Your task to perform on an android device: open a new tab in the chrome app Image 0: 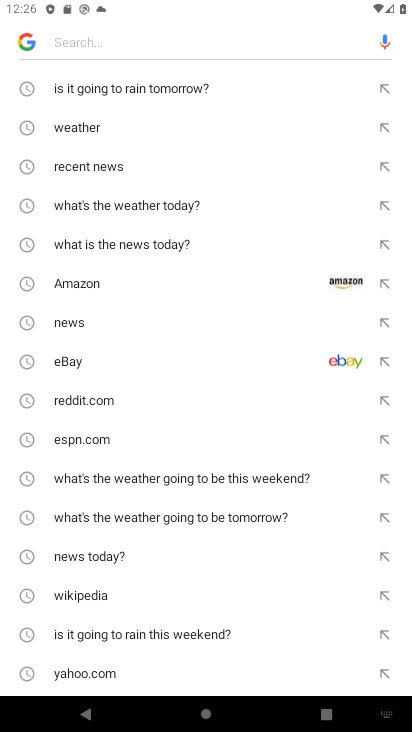
Step 0: press home button
Your task to perform on an android device: open a new tab in the chrome app Image 1: 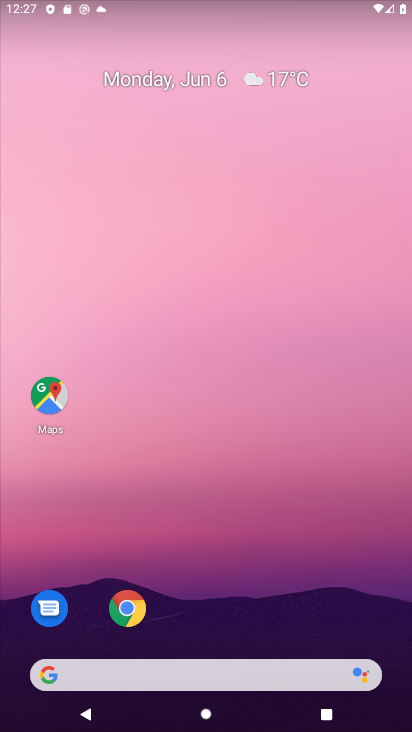
Step 1: click (124, 606)
Your task to perform on an android device: open a new tab in the chrome app Image 2: 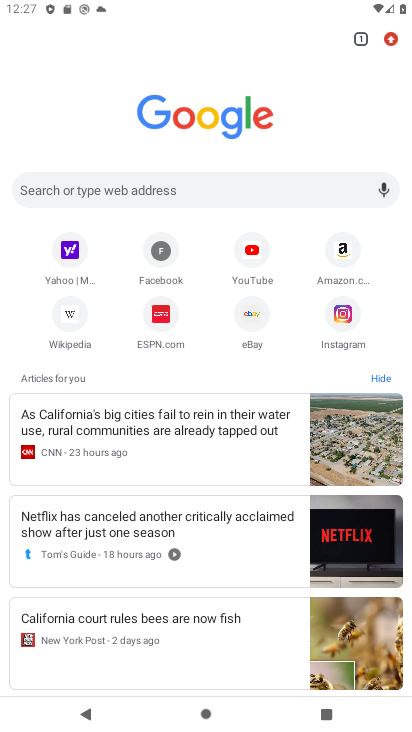
Step 2: click (362, 37)
Your task to perform on an android device: open a new tab in the chrome app Image 3: 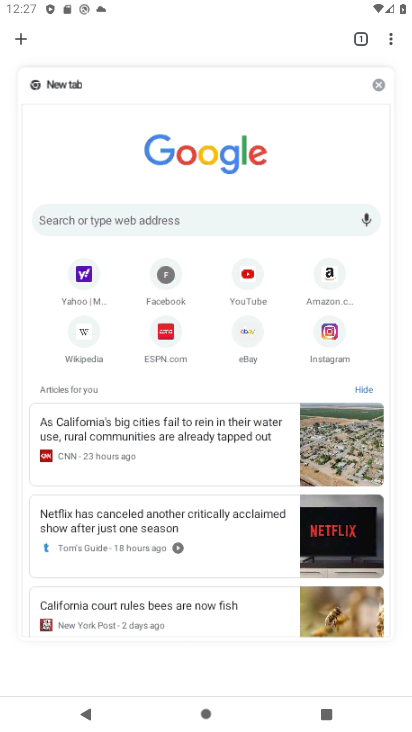
Step 3: click (26, 45)
Your task to perform on an android device: open a new tab in the chrome app Image 4: 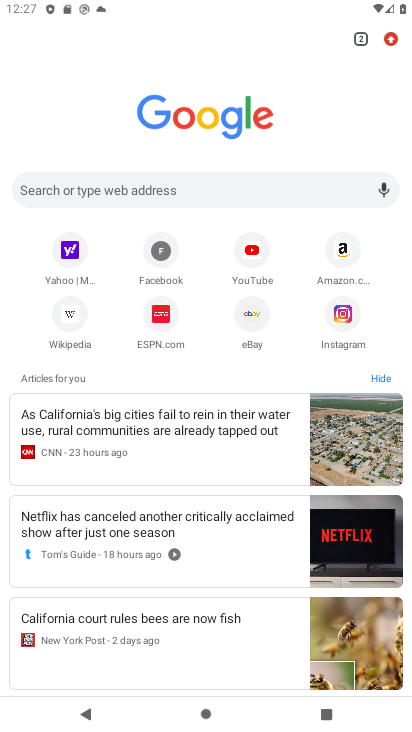
Step 4: task complete